Your task to perform on an android device: toggle pop-ups in chrome Image 0: 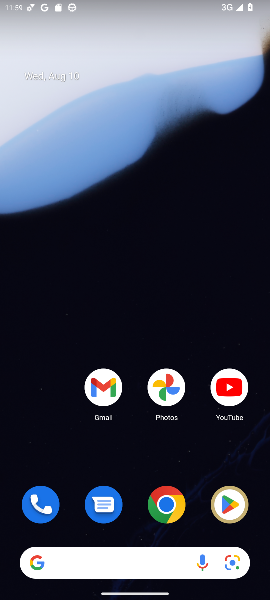
Step 0: press home button
Your task to perform on an android device: toggle pop-ups in chrome Image 1: 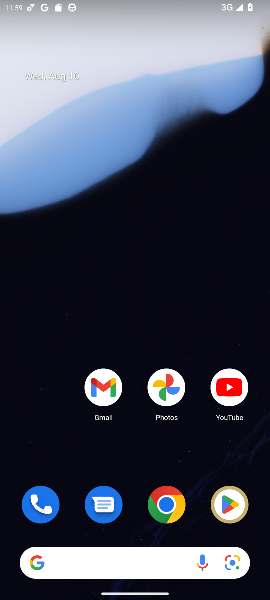
Step 1: click (158, 504)
Your task to perform on an android device: toggle pop-ups in chrome Image 2: 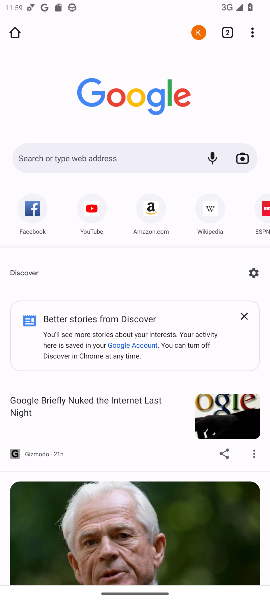
Step 2: drag from (251, 28) to (156, 294)
Your task to perform on an android device: toggle pop-ups in chrome Image 3: 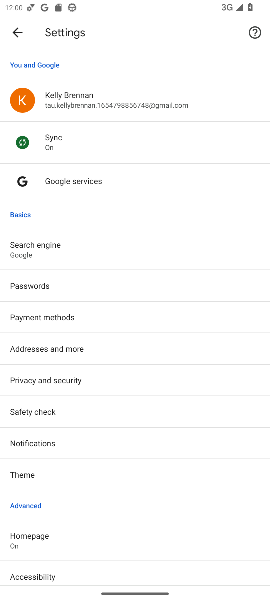
Step 3: drag from (133, 512) to (134, 271)
Your task to perform on an android device: toggle pop-ups in chrome Image 4: 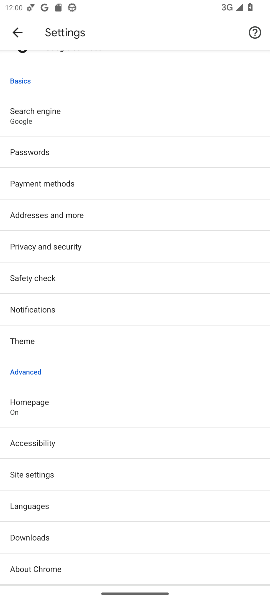
Step 4: click (34, 473)
Your task to perform on an android device: toggle pop-ups in chrome Image 5: 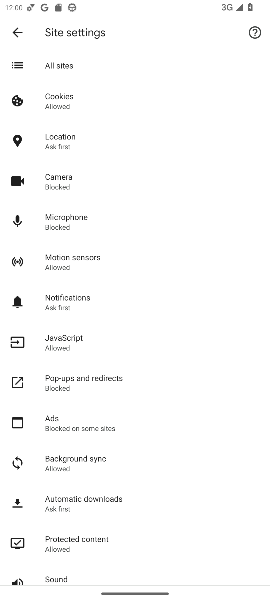
Step 5: click (90, 388)
Your task to perform on an android device: toggle pop-ups in chrome Image 6: 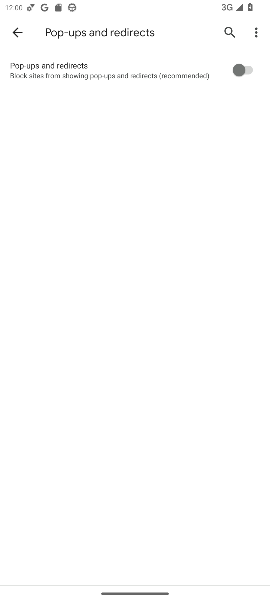
Step 6: click (239, 66)
Your task to perform on an android device: toggle pop-ups in chrome Image 7: 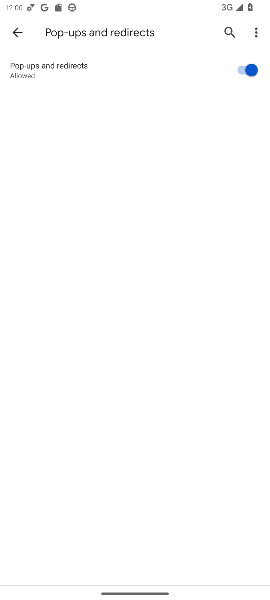
Step 7: task complete